Your task to perform on an android device: turn notification dots off Image 0: 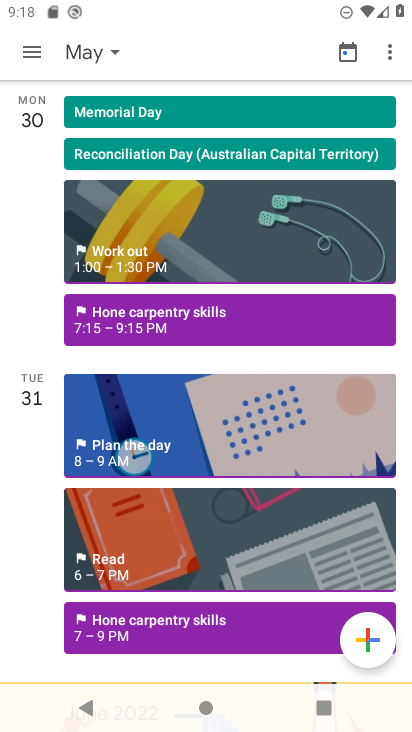
Step 0: drag from (246, 611) to (250, 228)
Your task to perform on an android device: turn notification dots off Image 1: 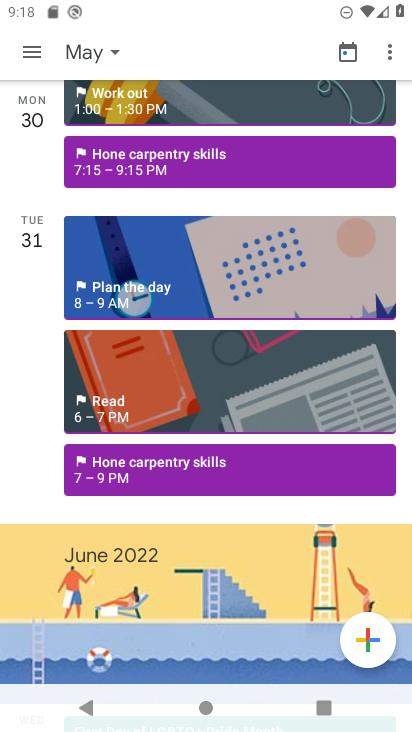
Step 1: drag from (257, 569) to (289, 178)
Your task to perform on an android device: turn notification dots off Image 2: 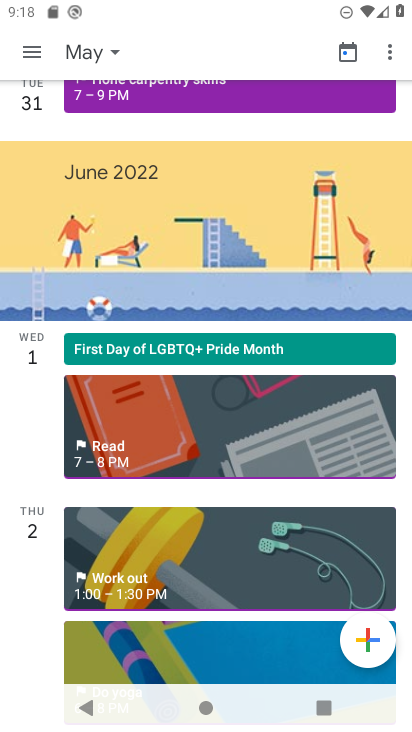
Step 2: drag from (292, 140) to (328, 717)
Your task to perform on an android device: turn notification dots off Image 3: 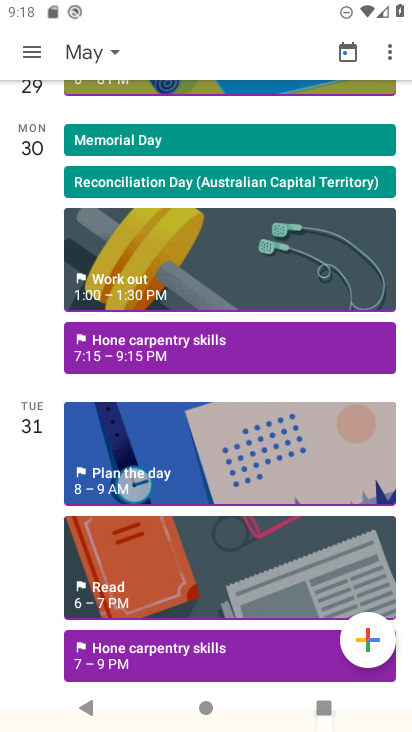
Step 3: press home button
Your task to perform on an android device: turn notification dots off Image 4: 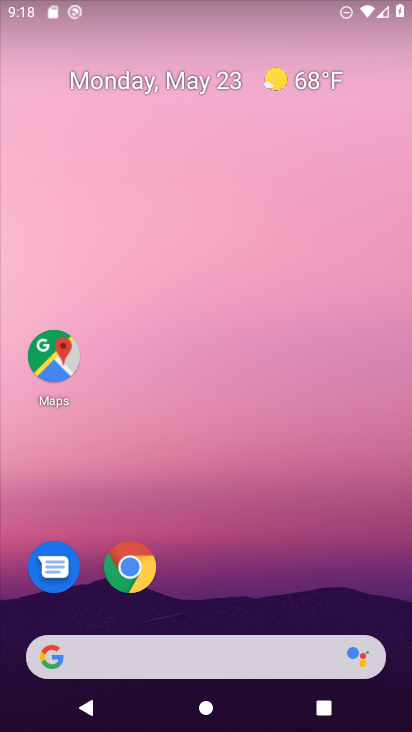
Step 4: drag from (208, 574) to (185, 127)
Your task to perform on an android device: turn notification dots off Image 5: 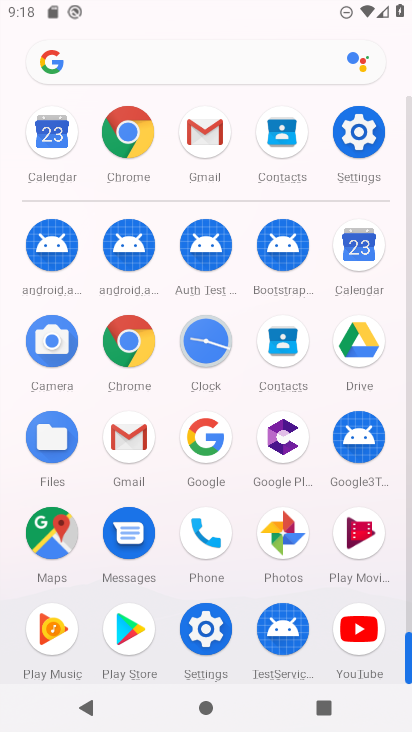
Step 5: click (357, 129)
Your task to perform on an android device: turn notification dots off Image 6: 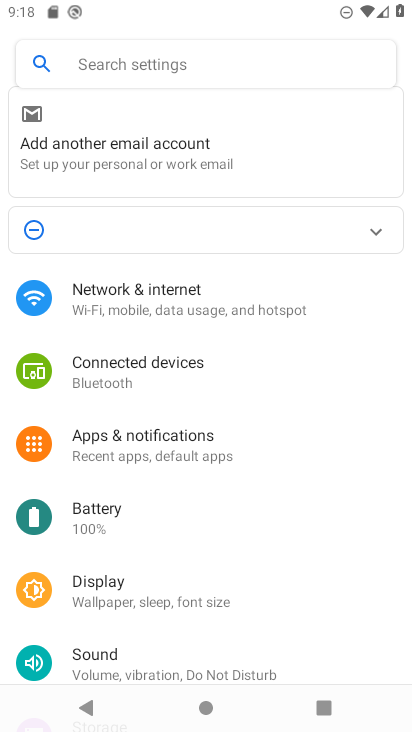
Step 6: drag from (204, 564) to (243, 113)
Your task to perform on an android device: turn notification dots off Image 7: 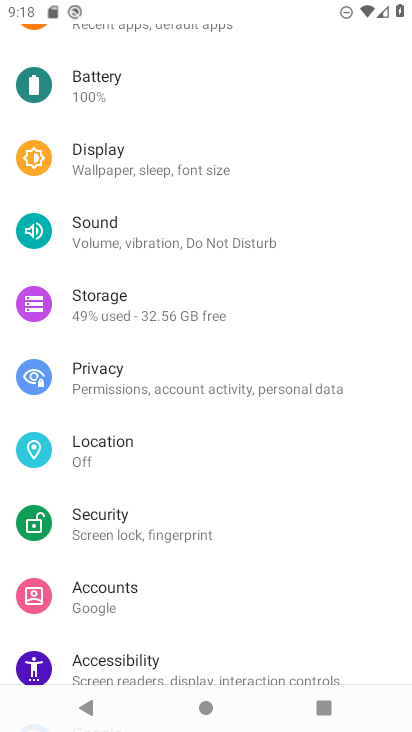
Step 7: drag from (194, 150) to (207, 455)
Your task to perform on an android device: turn notification dots off Image 8: 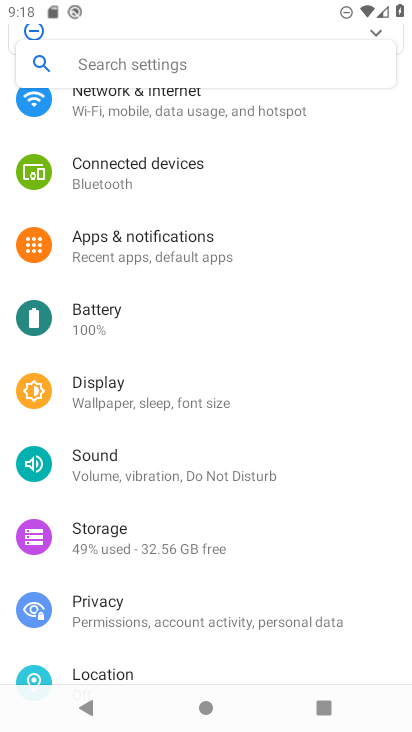
Step 8: click (160, 247)
Your task to perform on an android device: turn notification dots off Image 9: 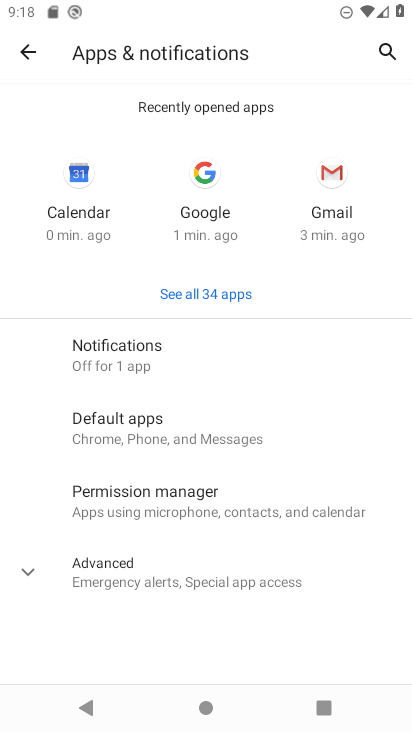
Step 9: drag from (271, 474) to (290, 281)
Your task to perform on an android device: turn notification dots off Image 10: 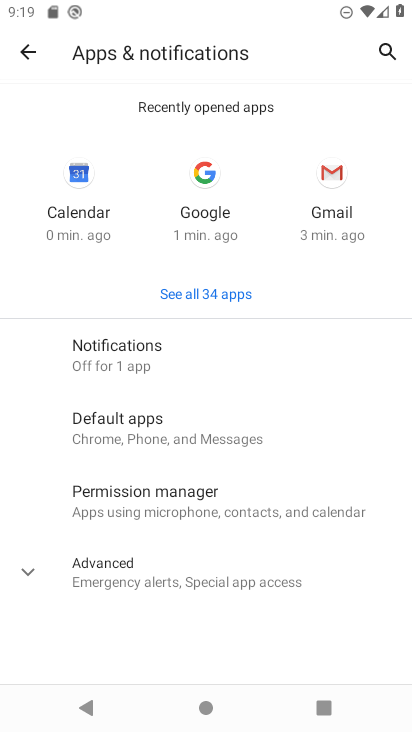
Step 10: drag from (291, 215) to (344, 570)
Your task to perform on an android device: turn notification dots off Image 11: 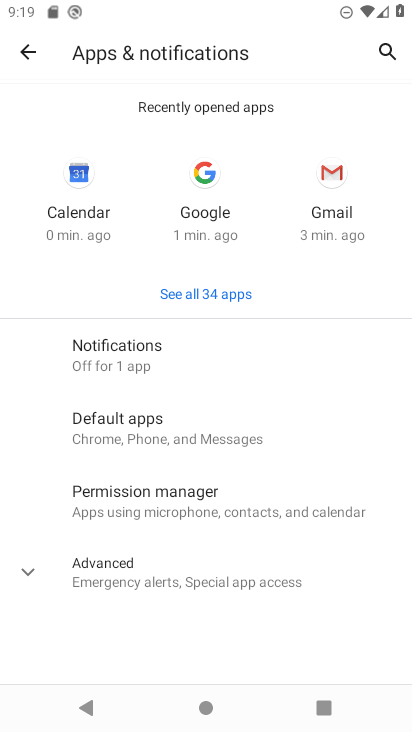
Step 11: drag from (218, 535) to (223, 138)
Your task to perform on an android device: turn notification dots off Image 12: 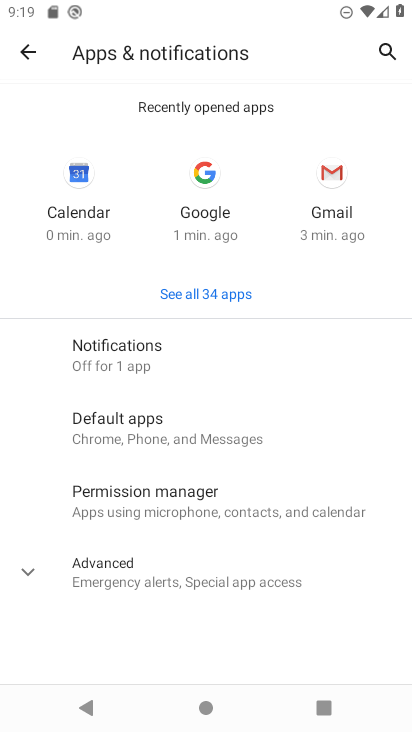
Step 12: click (175, 344)
Your task to perform on an android device: turn notification dots off Image 13: 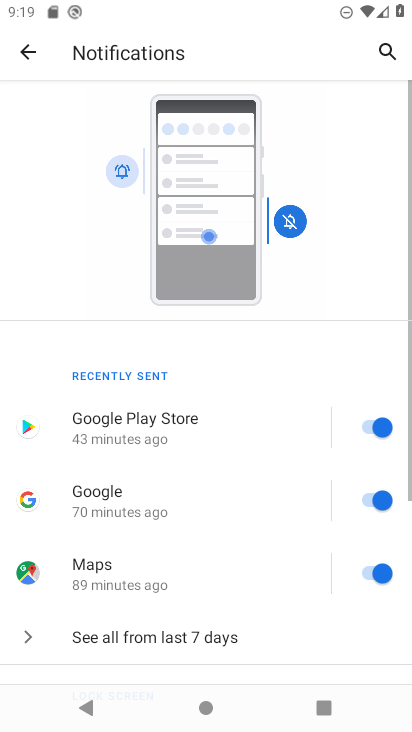
Step 13: drag from (288, 604) to (373, 61)
Your task to perform on an android device: turn notification dots off Image 14: 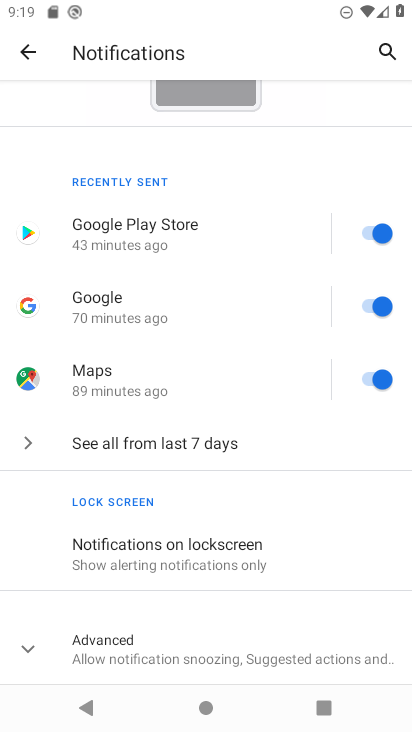
Step 14: drag from (248, 562) to (256, 256)
Your task to perform on an android device: turn notification dots off Image 15: 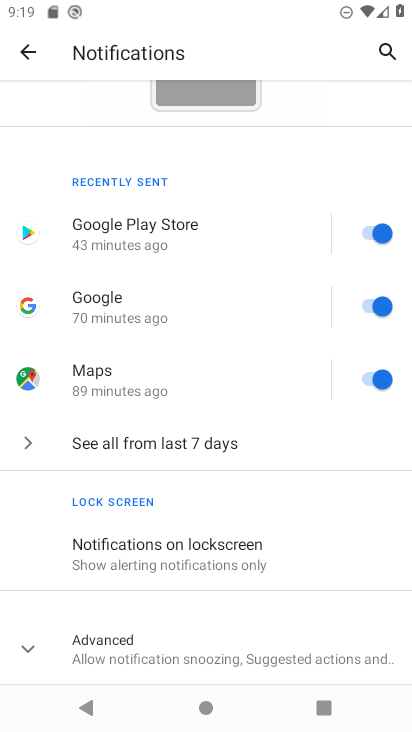
Step 15: click (154, 653)
Your task to perform on an android device: turn notification dots off Image 16: 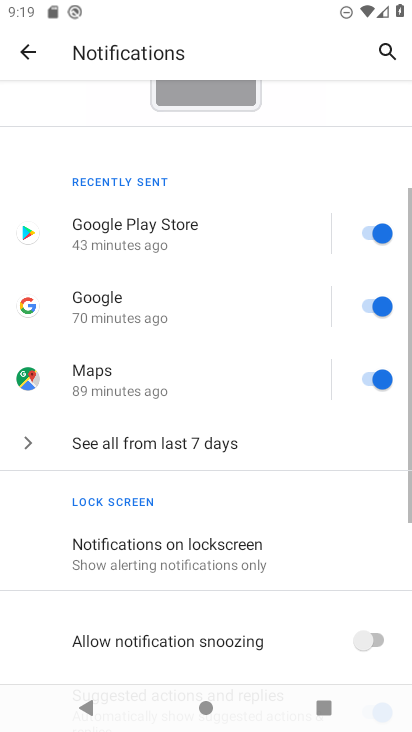
Step 16: task complete